Your task to perform on an android device: open the mobile data screen to see how much data has been used Image 0: 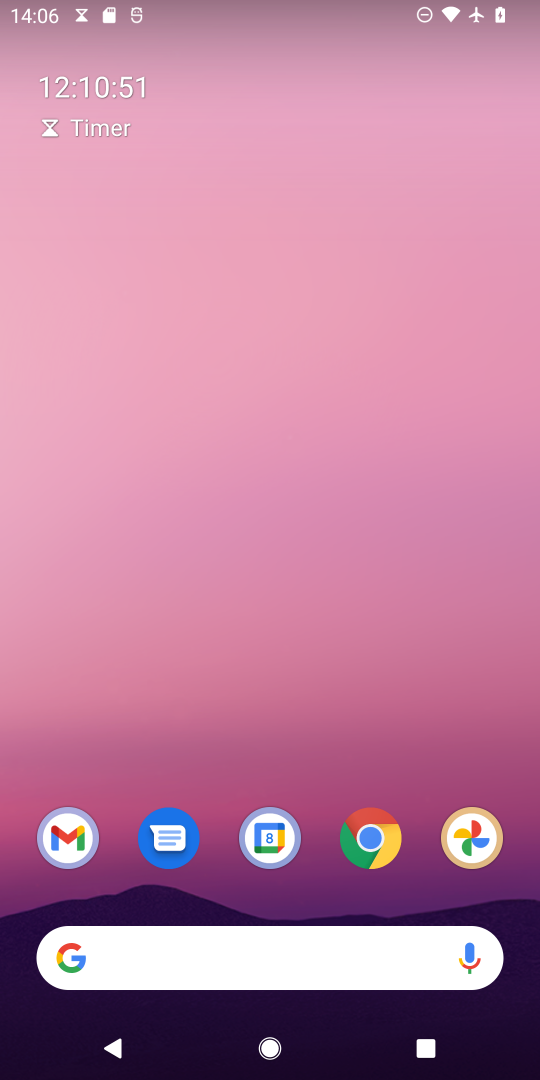
Step 0: press home button
Your task to perform on an android device: open the mobile data screen to see how much data has been used Image 1: 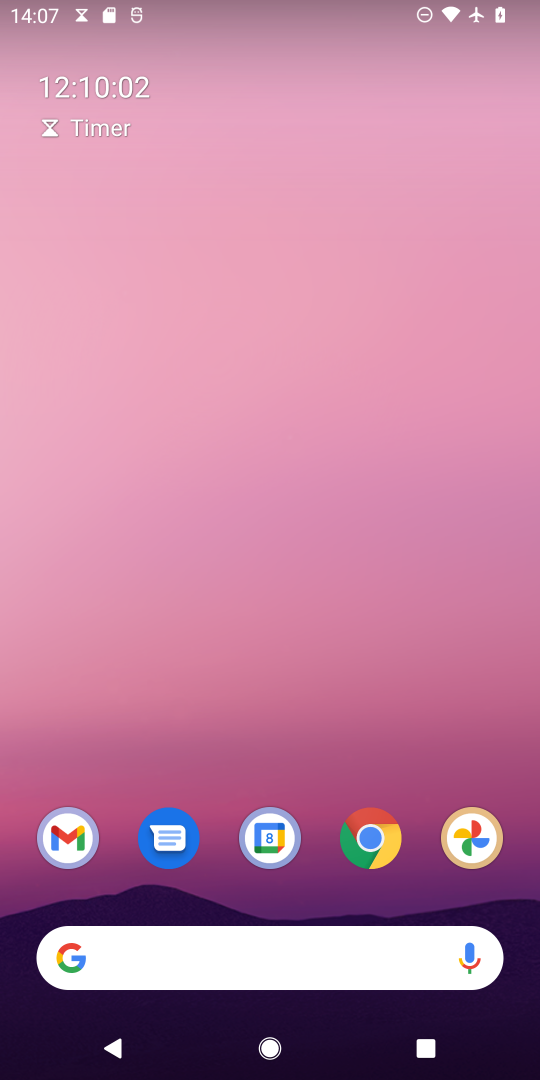
Step 1: drag from (317, 886) to (327, 94)
Your task to perform on an android device: open the mobile data screen to see how much data has been used Image 2: 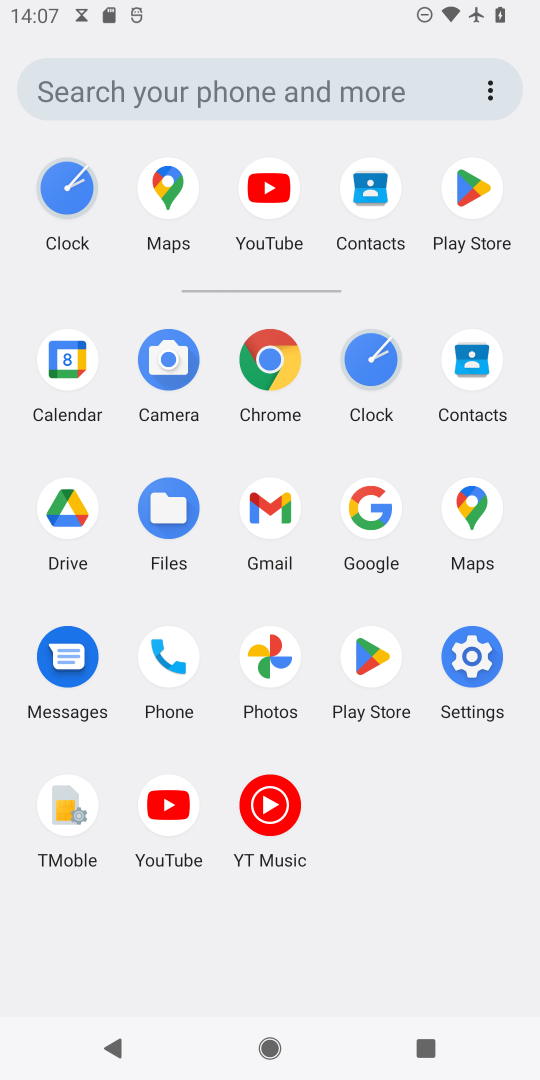
Step 2: click (468, 684)
Your task to perform on an android device: open the mobile data screen to see how much data has been used Image 3: 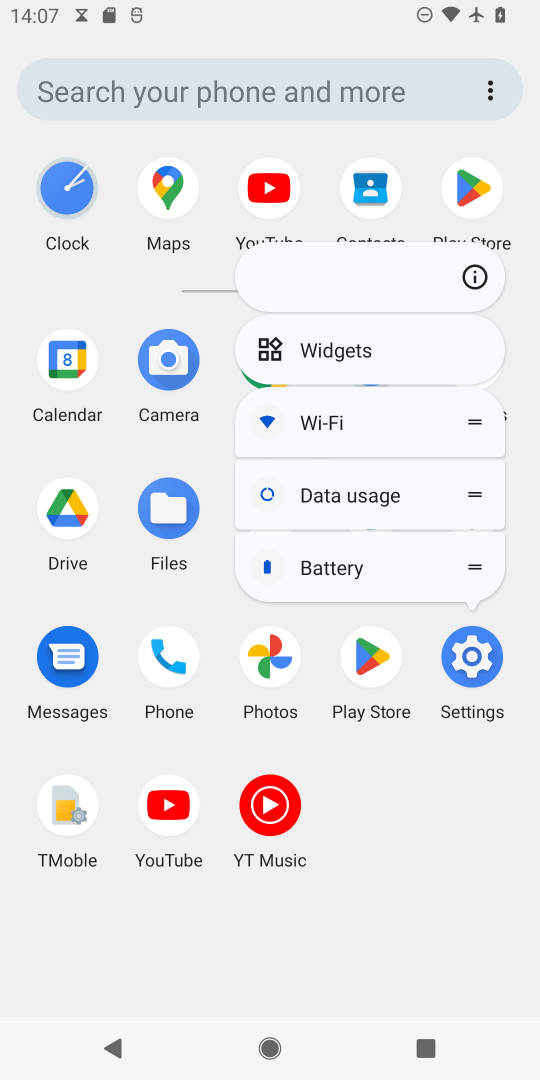
Step 3: click (465, 681)
Your task to perform on an android device: open the mobile data screen to see how much data has been used Image 4: 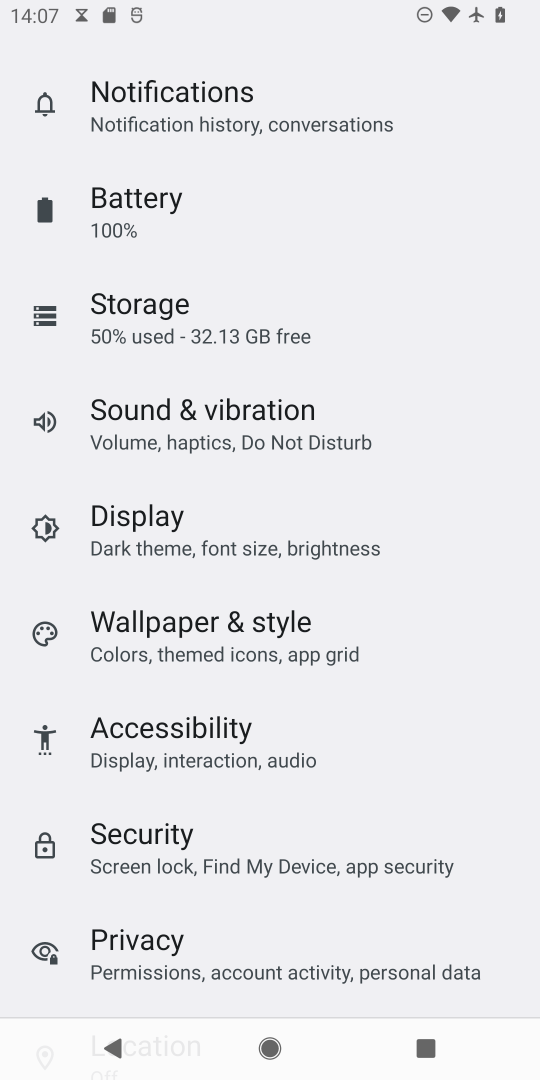
Step 4: drag from (322, 228) to (263, 1066)
Your task to perform on an android device: open the mobile data screen to see how much data has been used Image 5: 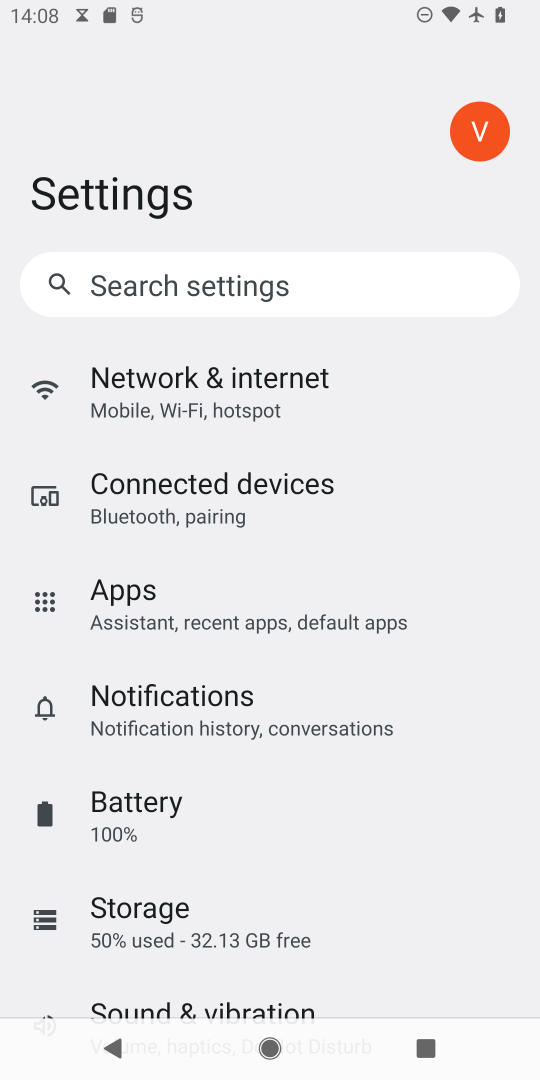
Step 5: click (290, 285)
Your task to perform on an android device: open the mobile data screen to see how much data has been used Image 6: 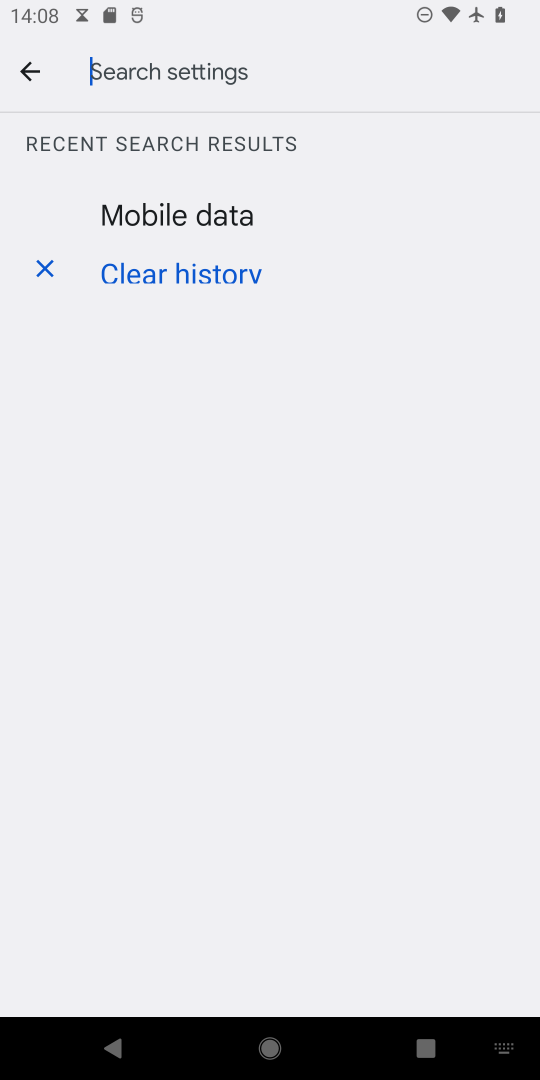
Step 6: click (175, 216)
Your task to perform on an android device: open the mobile data screen to see how much data has been used Image 7: 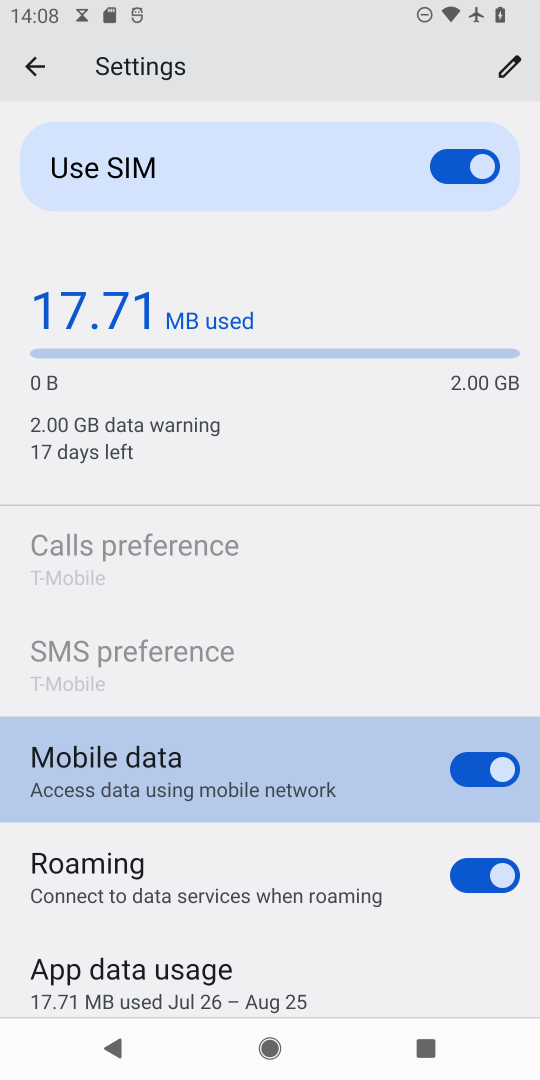
Step 7: click (139, 975)
Your task to perform on an android device: open the mobile data screen to see how much data has been used Image 8: 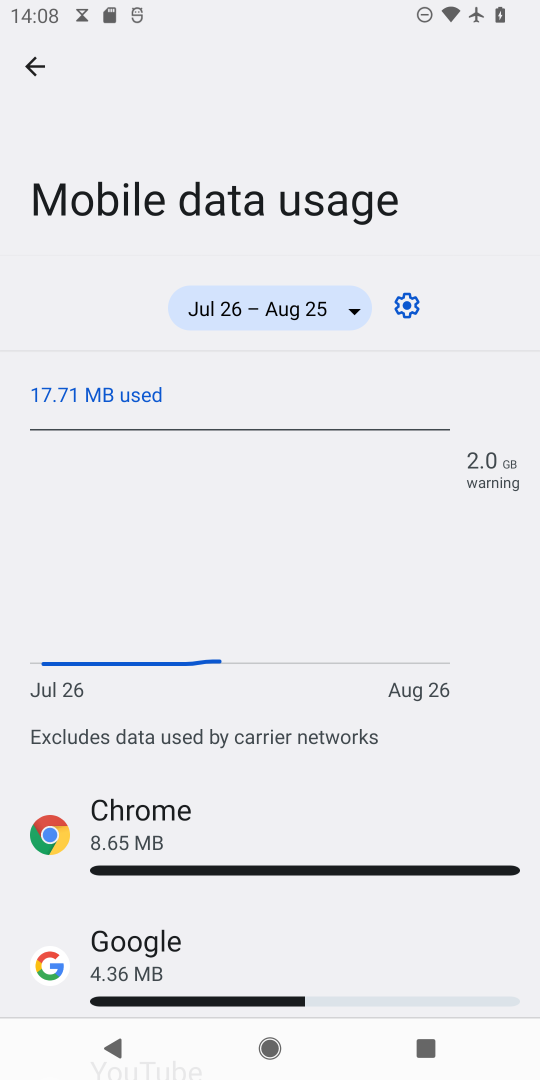
Step 8: task complete